Your task to perform on an android device: open chrome and create a bookmark for the current page Image 0: 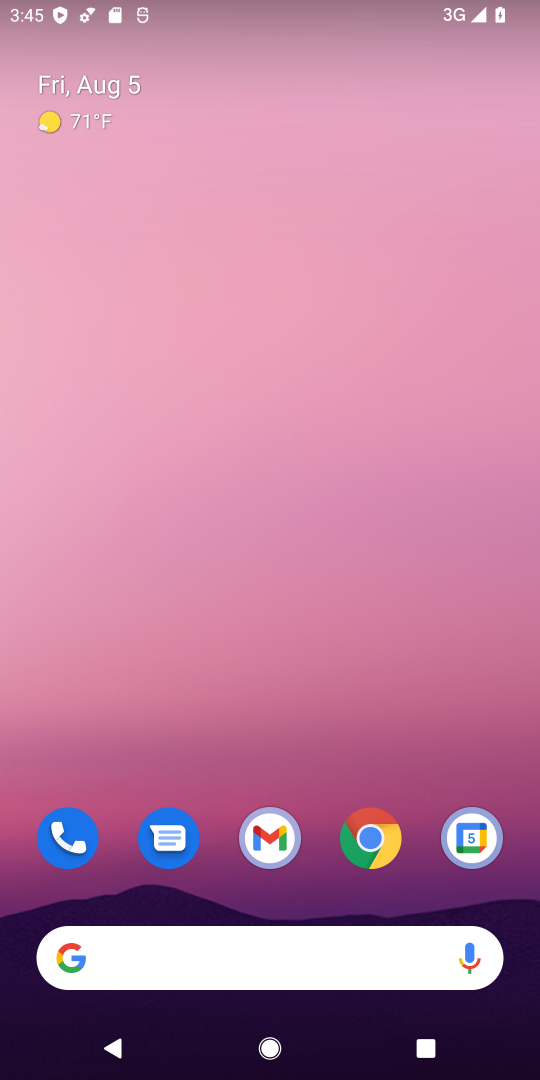
Step 0: drag from (172, 951) to (203, 298)
Your task to perform on an android device: open chrome and create a bookmark for the current page Image 1: 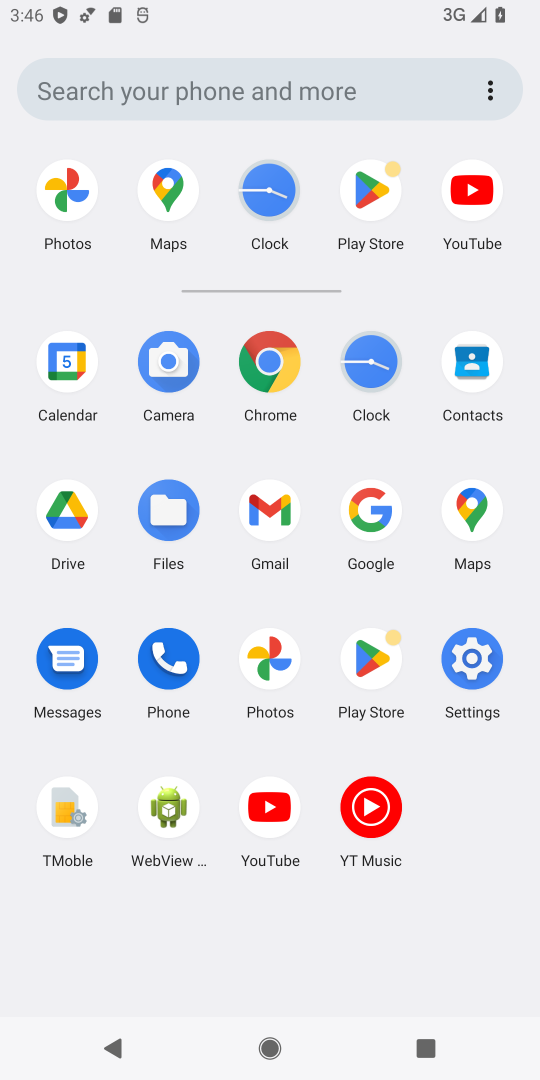
Step 1: click (284, 371)
Your task to perform on an android device: open chrome and create a bookmark for the current page Image 2: 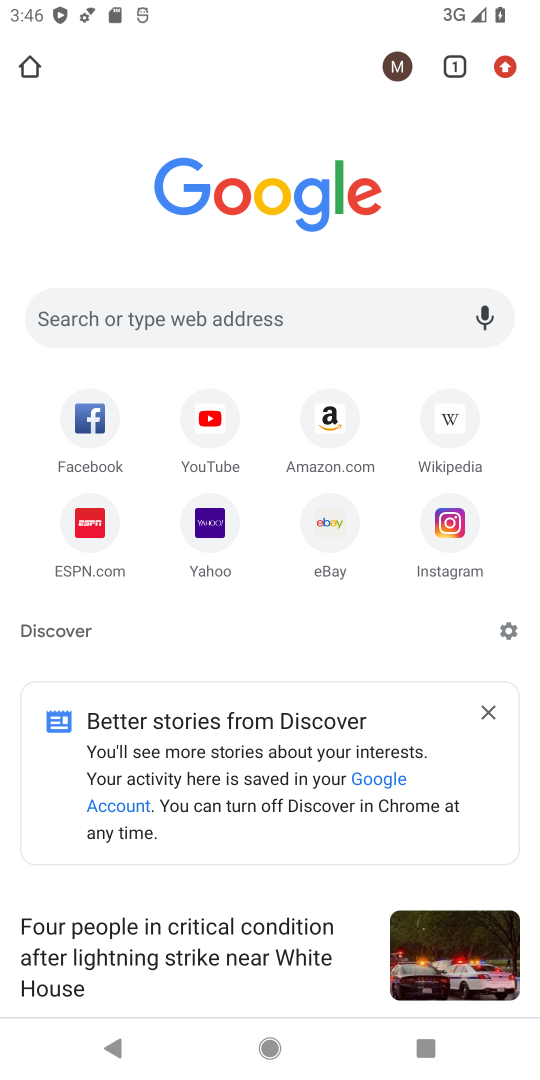
Step 2: click (530, 59)
Your task to perform on an android device: open chrome and create a bookmark for the current page Image 3: 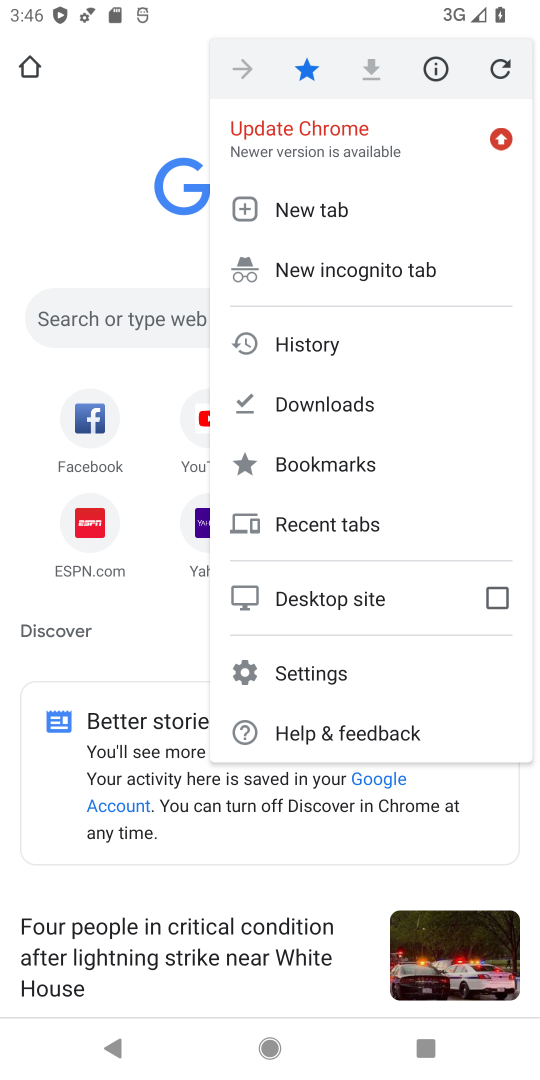
Step 3: click (345, 457)
Your task to perform on an android device: open chrome and create a bookmark for the current page Image 4: 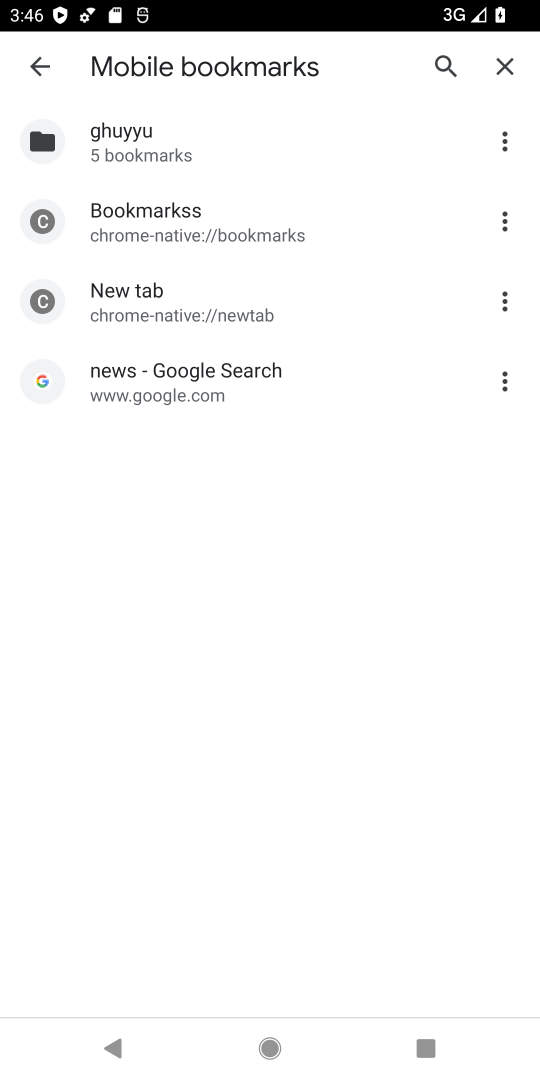
Step 4: task complete